Your task to perform on an android device: all mails in gmail Image 0: 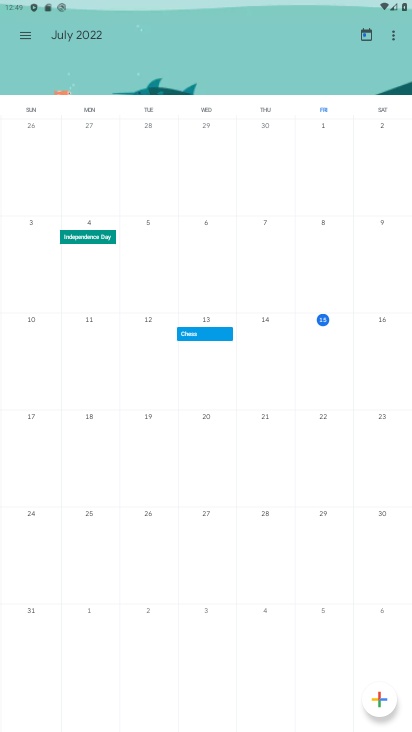
Step 0: press home button
Your task to perform on an android device: all mails in gmail Image 1: 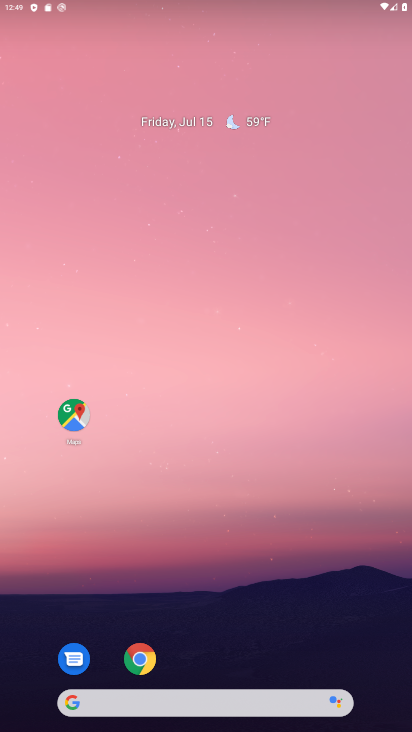
Step 1: drag from (221, 638) to (270, 127)
Your task to perform on an android device: all mails in gmail Image 2: 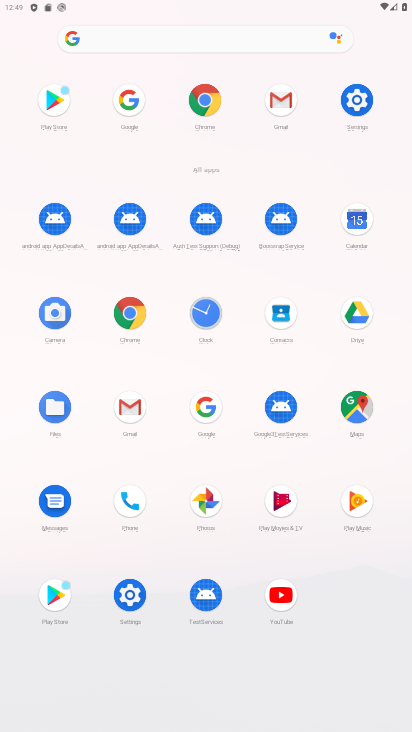
Step 2: click (283, 103)
Your task to perform on an android device: all mails in gmail Image 3: 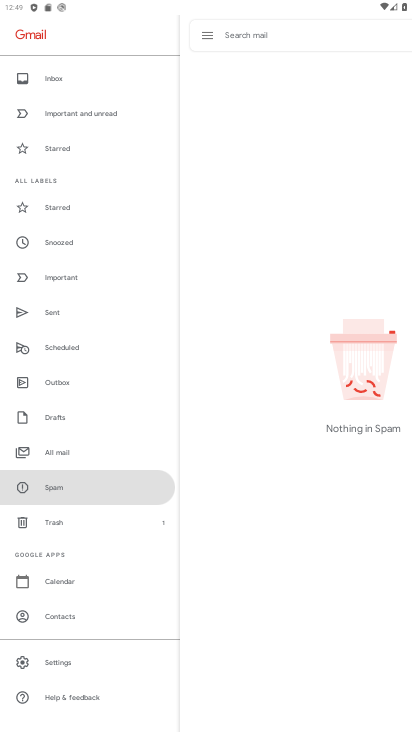
Step 3: click (78, 451)
Your task to perform on an android device: all mails in gmail Image 4: 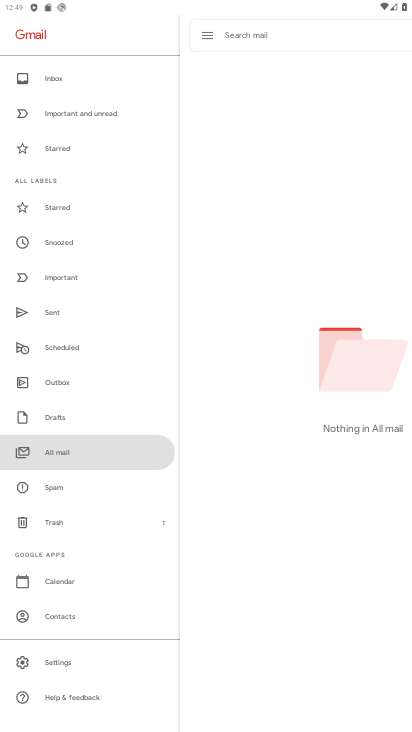
Step 4: task complete